Your task to perform on an android device: Go to network settings Image 0: 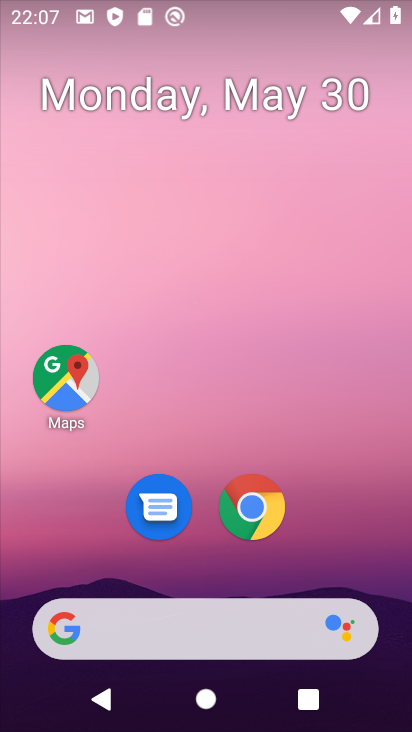
Step 0: drag from (358, 546) to (363, 152)
Your task to perform on an android device: Go to network settings Image 1: 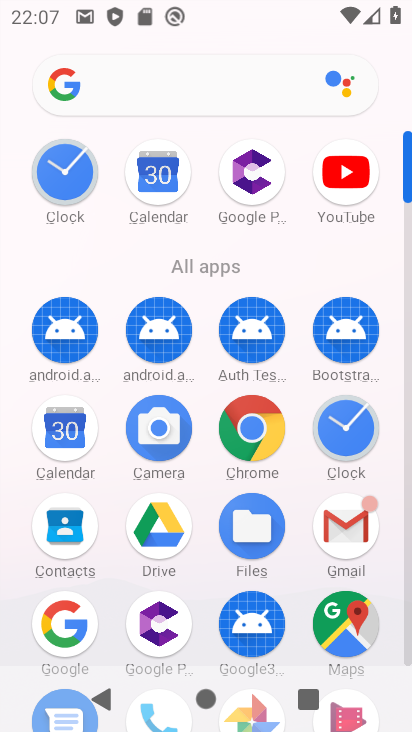
Step 1: drag from (390, 497) to (411, 200)
Your task to perform on an android device: Go to network settings Image 2: 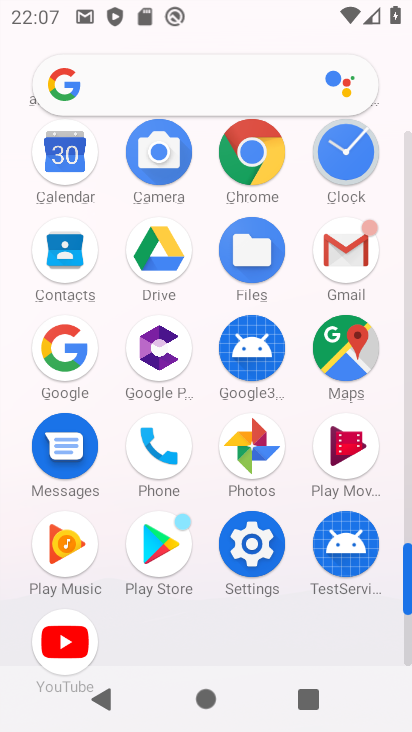
Step 2: click (265, 569)
Your task to perform on an android device: Go to network settings Image 3: 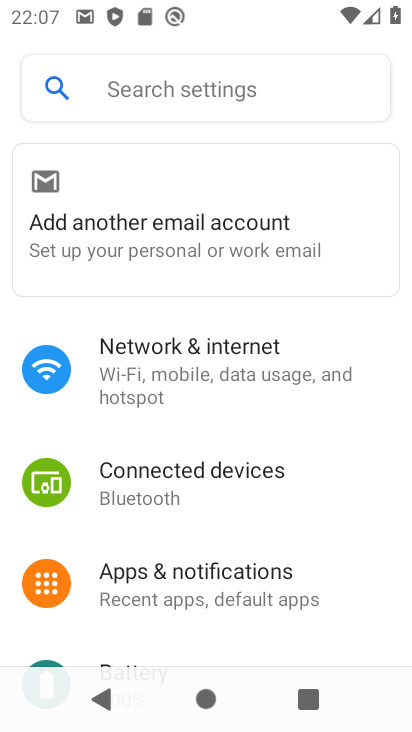
Step 3: drag from (363, 602) to (368, 319)
Your task to perform on an android device: Go to network settings Image 4: 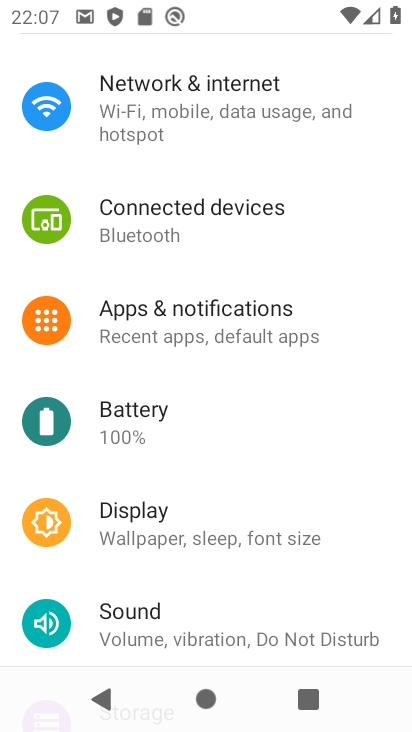
Step 4: drag from (367, 565) to (343, 356)
Your task to perform on an android device: Go to network settings Image 5: 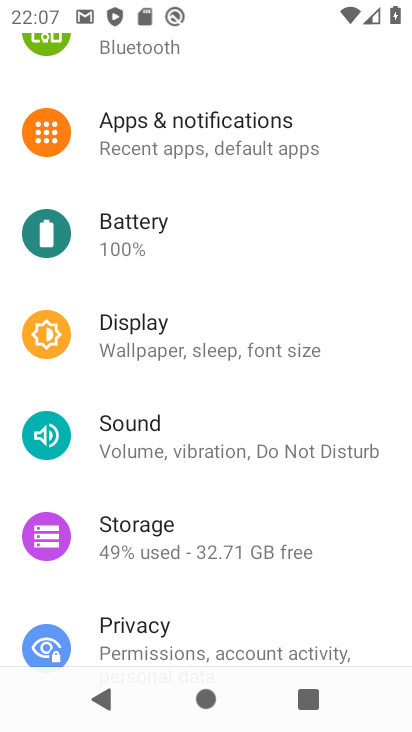
Step 5: drag from (361, 564) to (350, 407)
Your task to perform on an android device: Go to network settings Image 6: 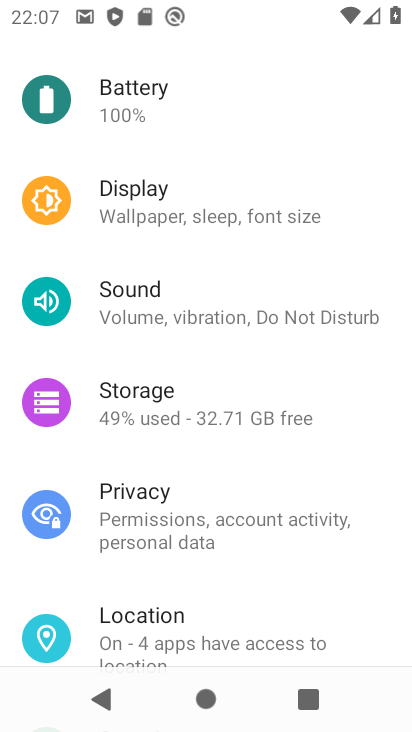
Step 6: drag from (365, 579) to (366, 370)
Your task to perform on an android device: Go to network settings Image 7: 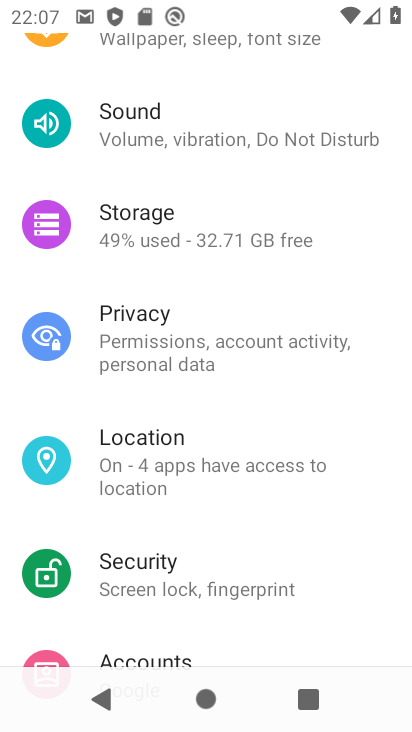
Step 7: drag from (368, 577) to (360, 372)
Your task to perform on an android device: Go to network settings Image 8: 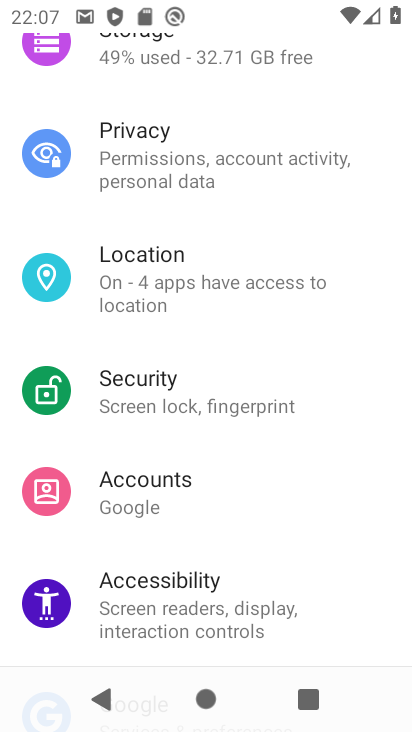
Step 8: drag from (360, 561) to (358, 341)
Your task to perform on an android device: Go to network settings Image 9: 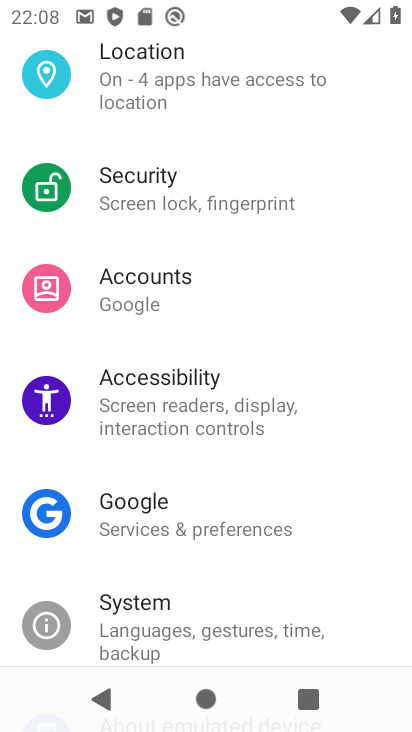
Step 9: drag from (362, 560) to (356, 354)
Your task to perform on an android device: Go to network settings Image 10: 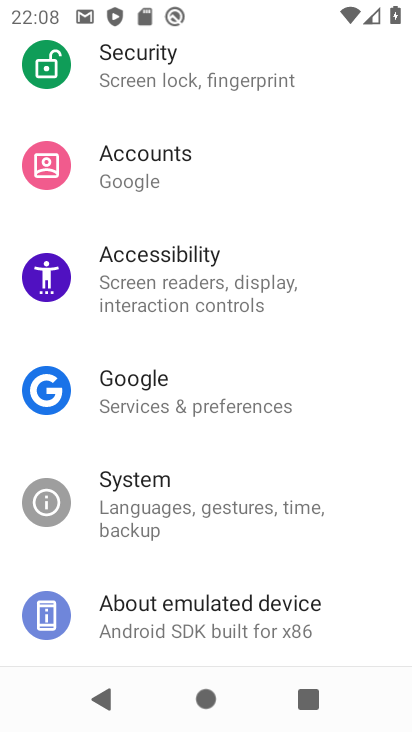
Step 10: drag from (359, 310) to (350, 449)
Your task to perform on an android device: Go to network settings Image 11: 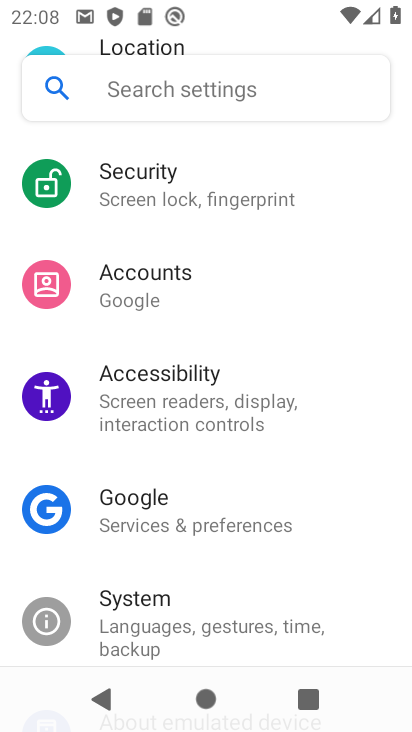
Step 11: drag from (330, 303) to (354, 449)
Your task to perform on an android device: Go to network settings Image 12: 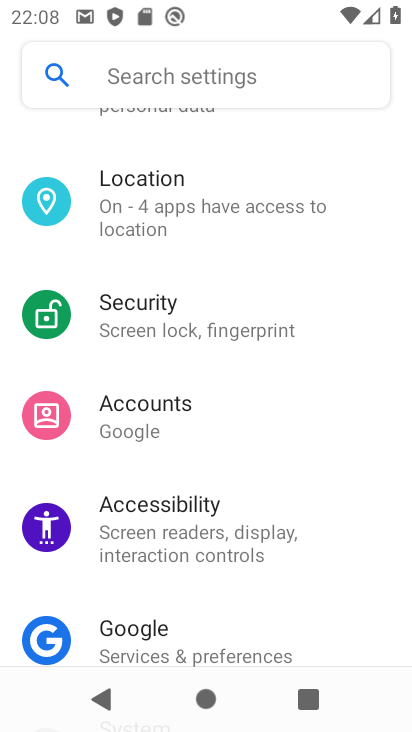
Step 12: drag from (338, 307) to (357, 455)
Your task to perform on an android device: Go to network settings Image 13: 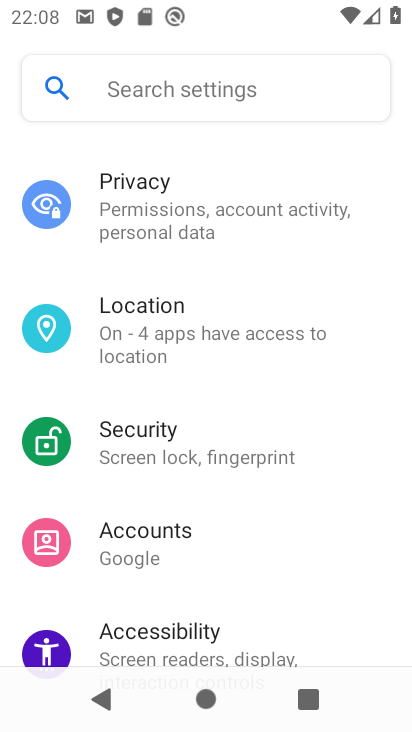
Step 13: drag from (344, 263) to (384, 514)
Your task to perform on an android device: Go to network settings Image 14: 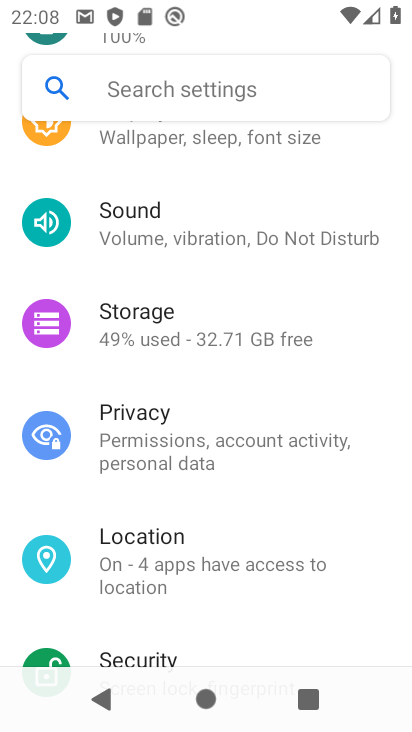
Step 14: drag from (347, 297) to (366, 458)
Your task to perform on an android device: Go to network settings Image 15: 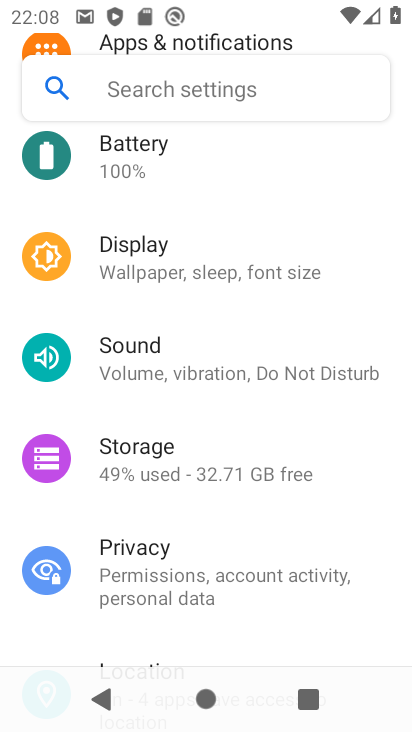
Step 15: drag from (333, 222) to (352, 333)
Your task to perform on an android device: Go to network settings Image 16: 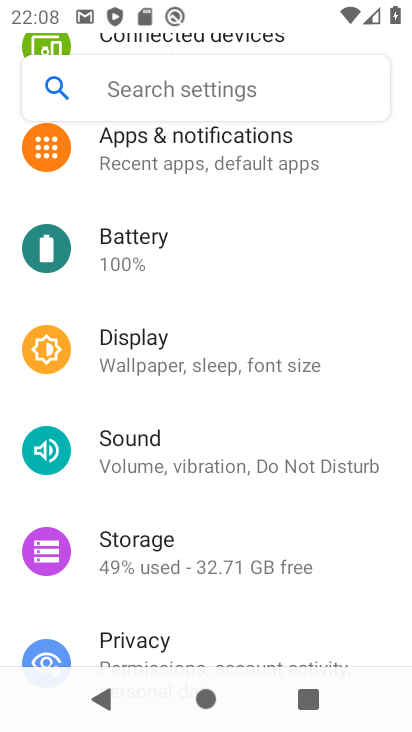
Step 16: drag from (334, 196) to (370, 366)
Your task to perform on an android device: Go to network settings Image 17: 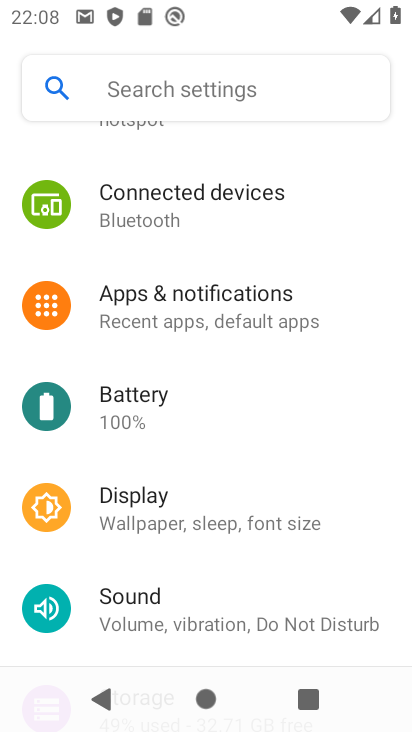
Step 17: drag from (335, 183) to (383, 378)
Your task to perform on an android device: Go to network settings Image 18: 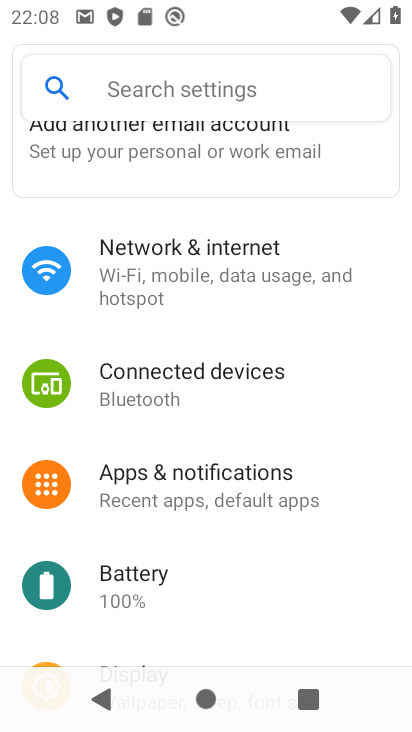
Step 18: click (266, 259)
Your task to perform on an android device: Go to network settings Image 19: 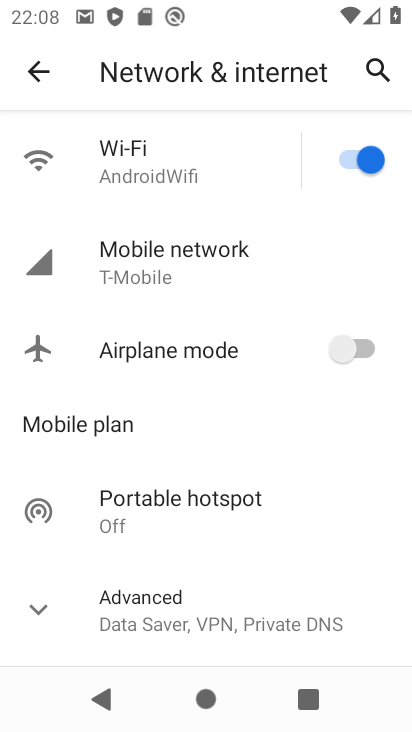
Step 19: task complete